Your task to perform on an android device: turn vacation reply on in the gmail app Image 0: 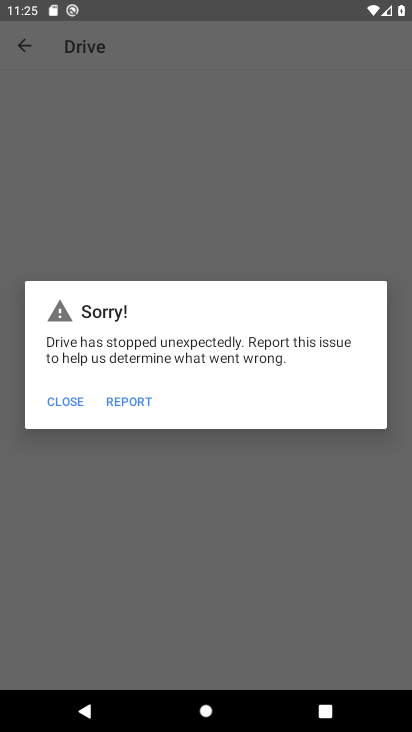
Step 0: press home button
Your task to perform on an android device: turn vacation reply on in the gmail app Image 1: 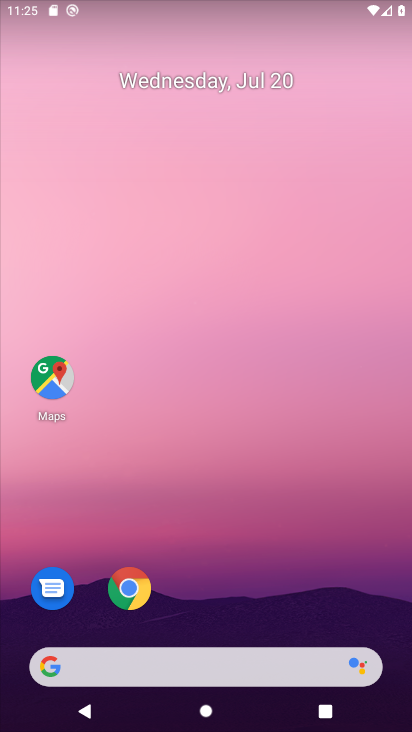
Step 1: drag from (227, 624) to (244, 85)
Your task to perform on an android device: turn vacation reply on in the gmail app Image 2: 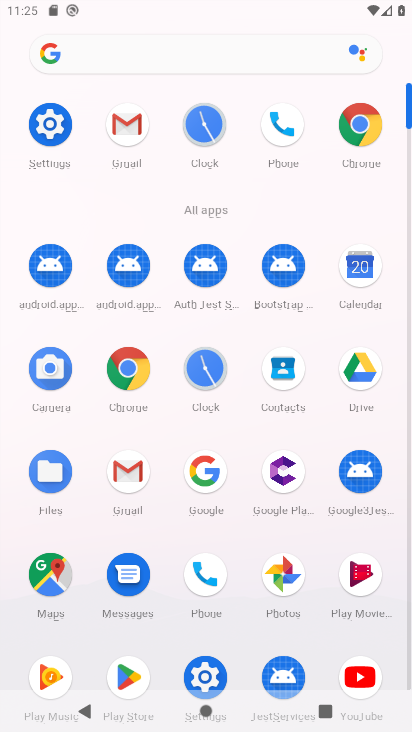
Step 2: click (124, 461)
Your task to perform on an android device: turn vacation reply on in the gmail app Image 3: 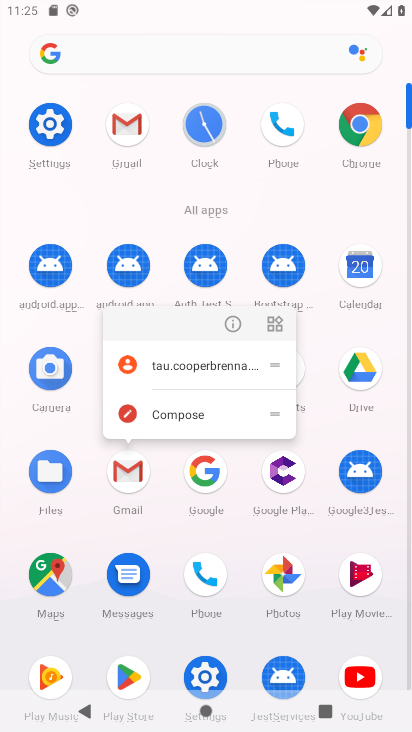
Step 3: click (121, 471)
Your task to perform on an android device: turn vacation reply on in the gmail app Image 4: 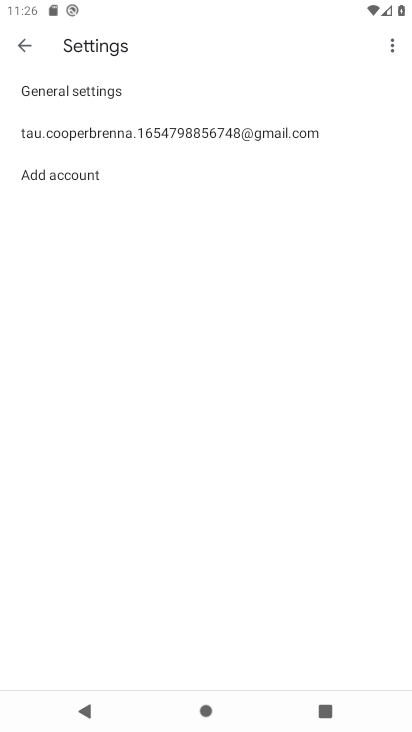
Step 4: click (164, 136)
Your task to perform on an android device: turn vacation reply on in the gmail app Image 5: 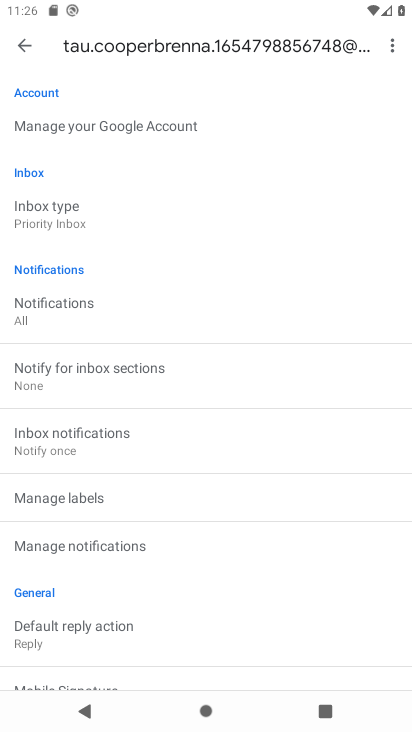
Step 5: drag from (189, 611) to (249, 161)
Your task to perform on an android device: turn vacation reply on in the gmail app Image 6: 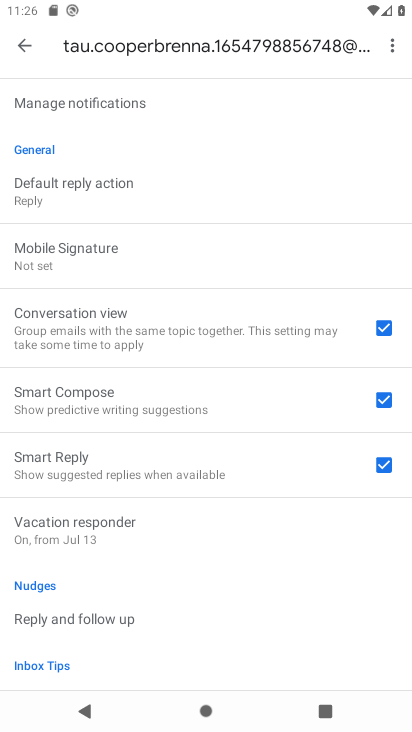
Step 6: click (132, 534)
Your task to perform on an android device: turn vacation reply on in the gmail app Image 7: 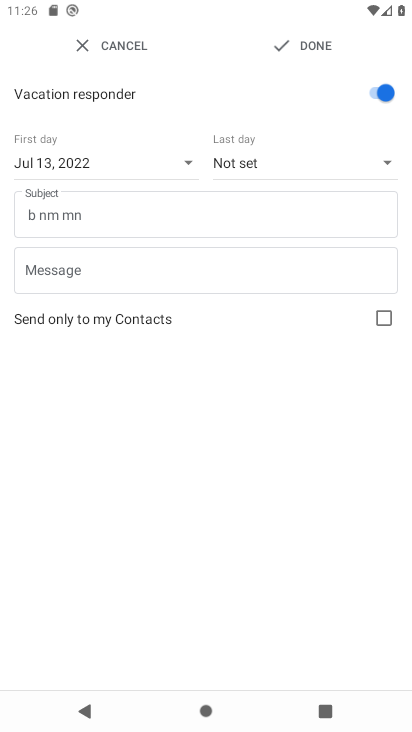
Step 7: click (304, 44)
Your task to perform on an android device: turn vacation reply on in the gmail app Image 8: 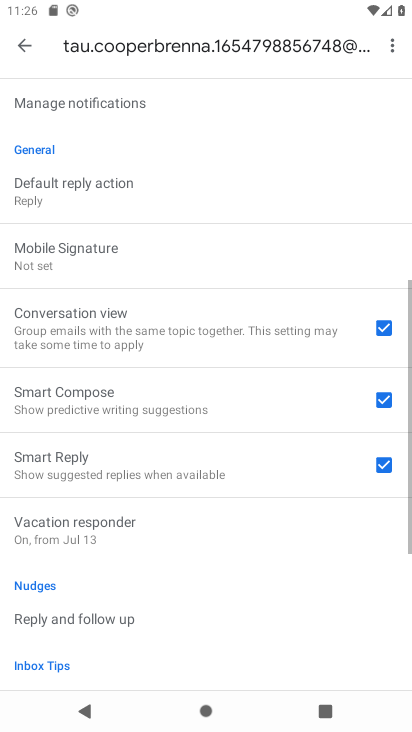
Step 8: task complete